Your task to perform on an android device: turn on wifi Image 0: 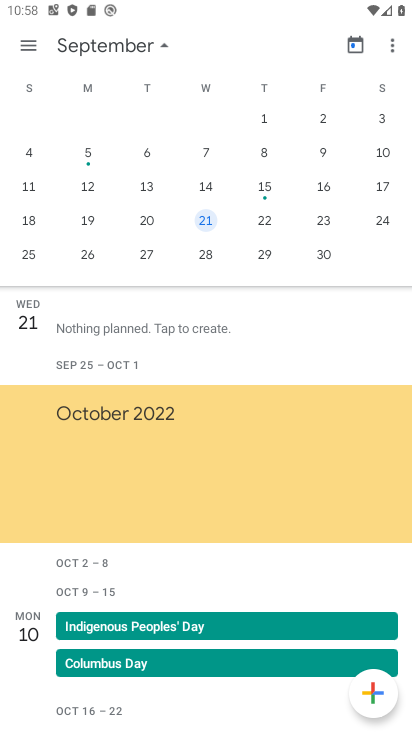
Step 0: press home button
Your task to perform on an android device: turn on wifi Image 1: 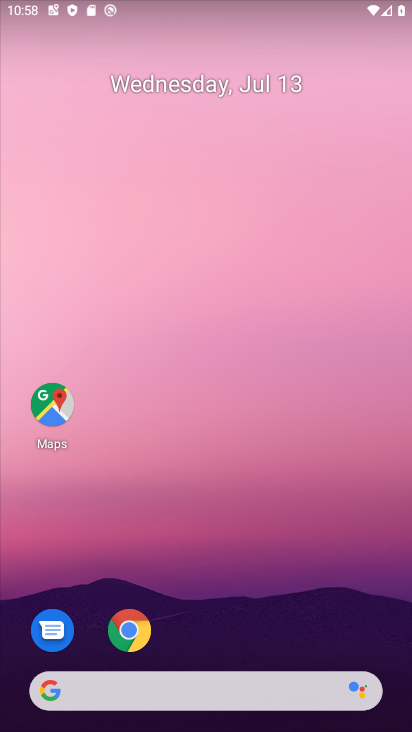
Step 1: drag from (292, 603) to (190, 61)
Your task to perform on an android device: turn on wifi Image 2: 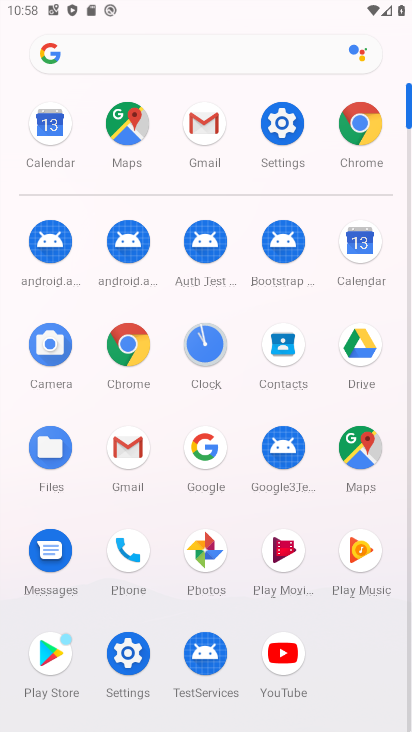
Step 2: click (278, 123)
Your task to perform on an android device: turn on wifi Image 3: 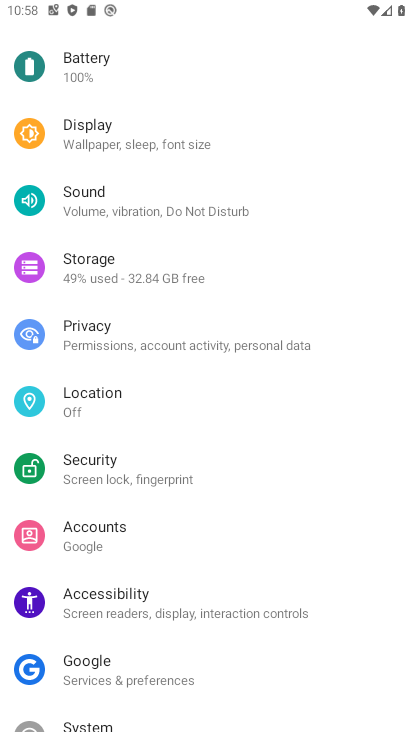
Step 3: drag from (201, 142) to (175, 654)
Your task to perform on an android device: turn on wifi Image 4: 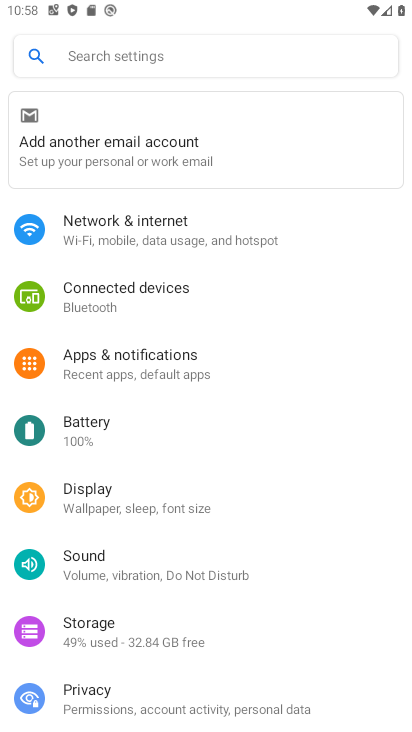
Step 4: click (129, 237)
Your task to perform on an android device: turn on wifi Image 5: 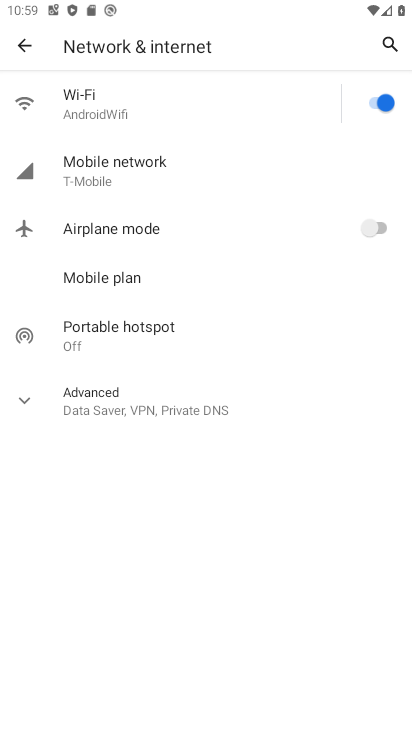
Step 5: task complete